Your task to perform on an android device: turn on data saver in the chrome app Image 0: 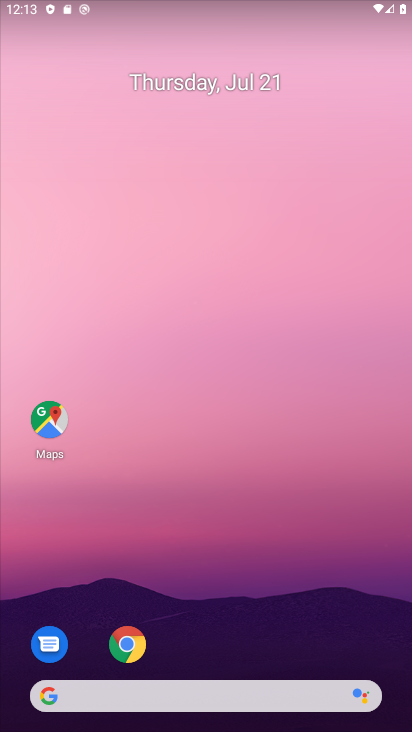
Step 0: press home button
Your task to perform on an android device: turn on data saver in the chrome app Image 1: 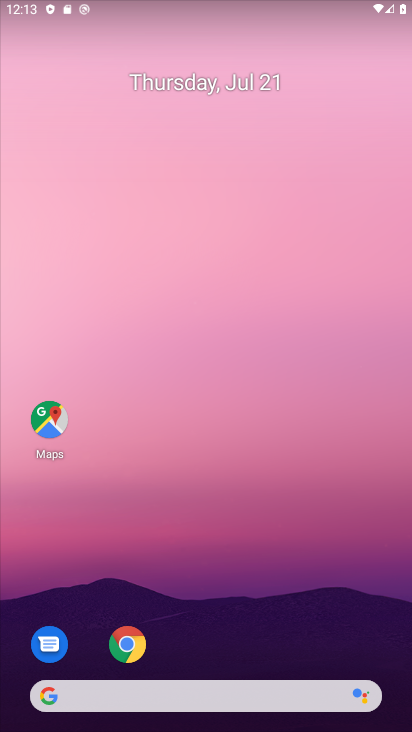
Step 1: drag from (255, 695) to (319, 220)
Your task to perform on an android device: turn on data saver in the chrome app Image 2: 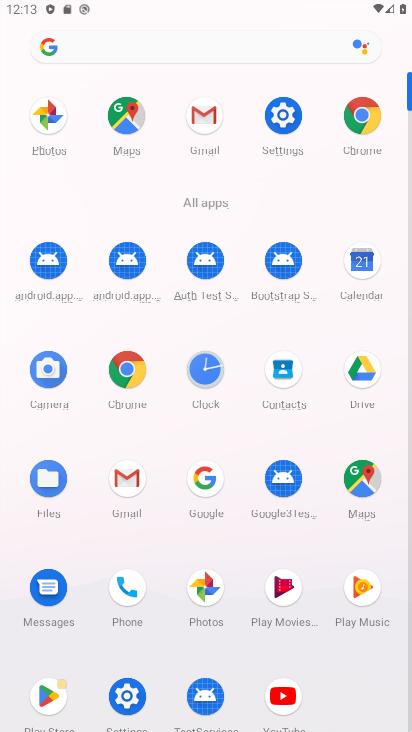
Step 2: click (377, 111)
Your task to perform on an android device: turn on data saver in the chrome app Image 3: 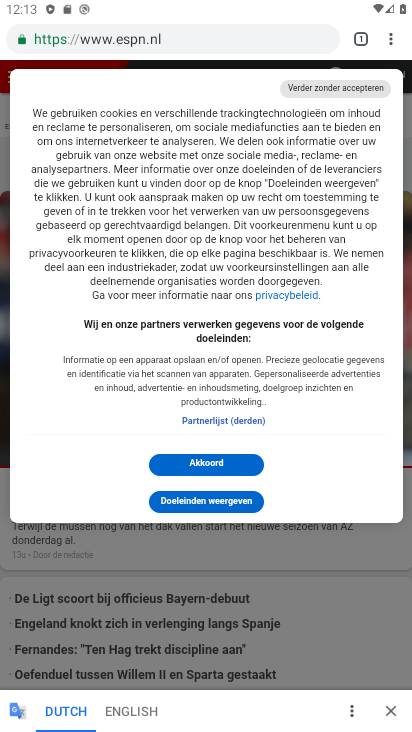
Step 3: drag from (389, 43) to (224, 479)
Your task to perform on an android device: turn on data saver in the chrome app Image 4: 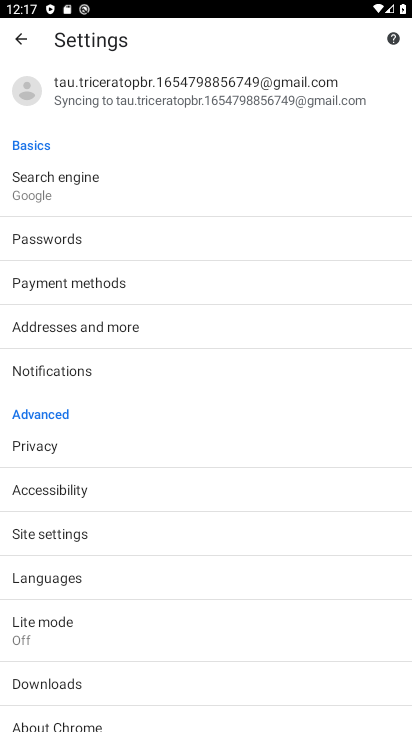
Step 4: click (68, 613)
Your task to perform on an android device: turn on data saver in the chrome app Image 5: 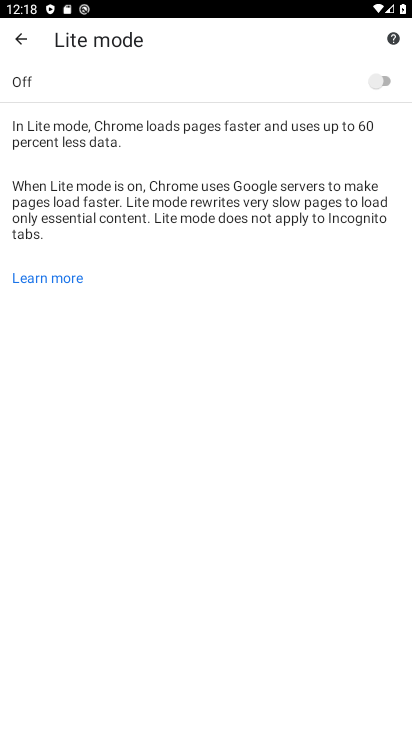
Step 5: click (326, 78)
Your task to perform on an android device: turn on data saver in the chrome app Image 6: 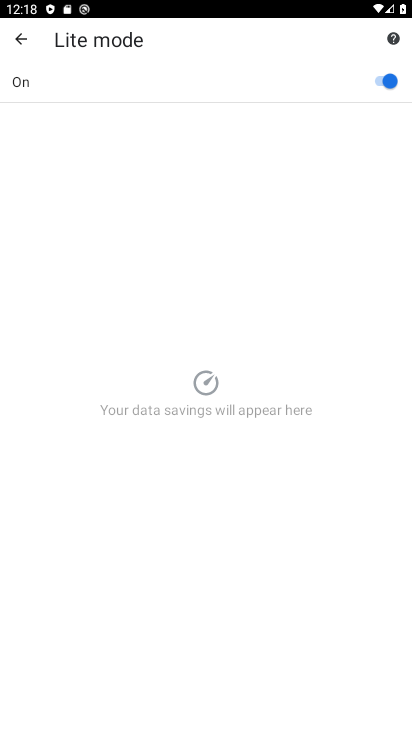
Step 6: task complete